Your task to perform on an android device: Open ESPN.com Image 0: 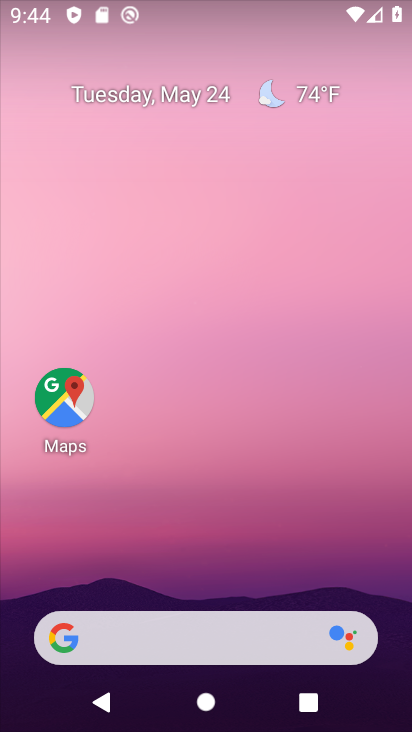
Step 0: drag from (193, 587) to (383, 509)
Your task to perform on an android device: Open ESPN.com Image 1: 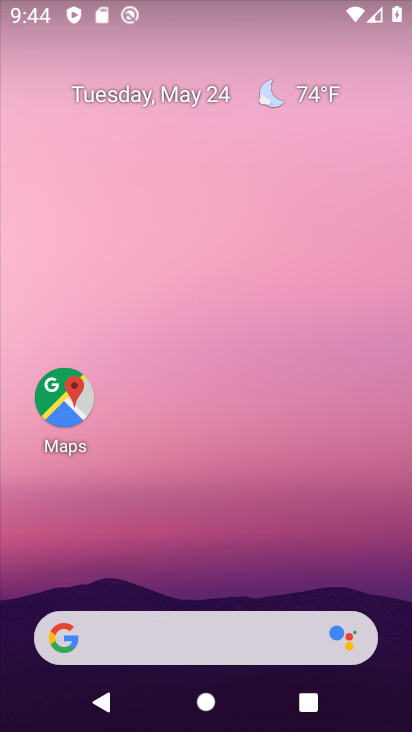
Step 1: click (207, 618)
Your task to perform on an android device: Open ESPN.com Image 2: 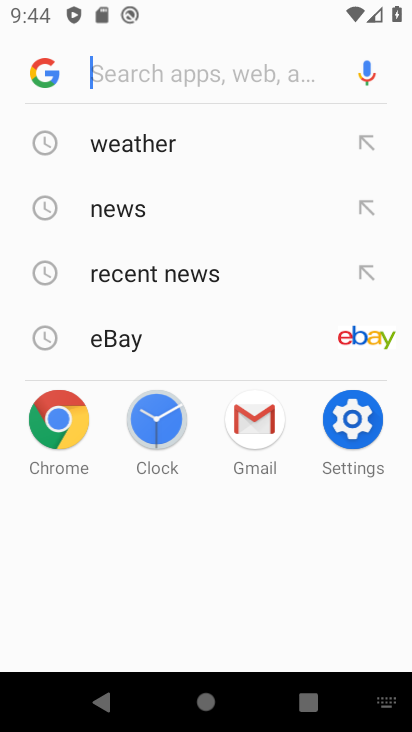
Step 2: type "espn.com"
Your task to perform on an android device: Open ESPN.com Image 3: 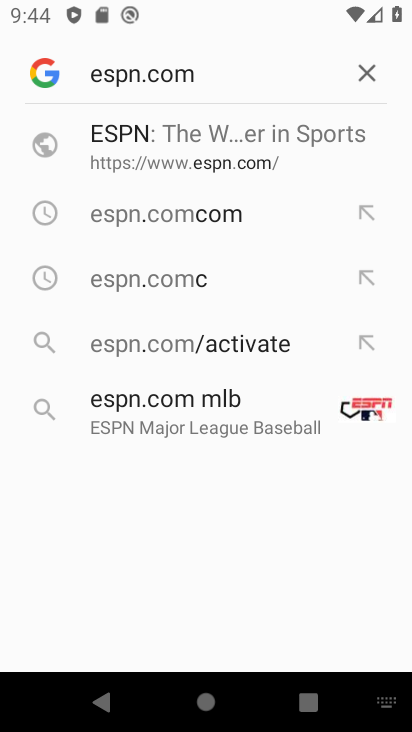
Step 3: click (107, 155)
Your task to perform on an android device: Open ESPN.com Image 4: 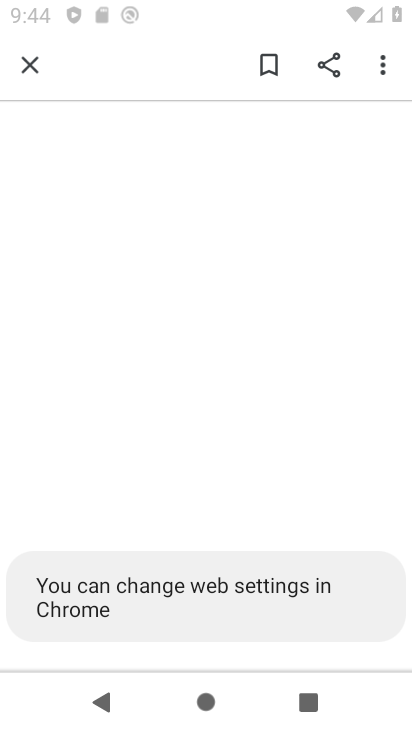
Step 4: task complete